Your task to perform on an android device: Search for dining sets on article.com Image 0: 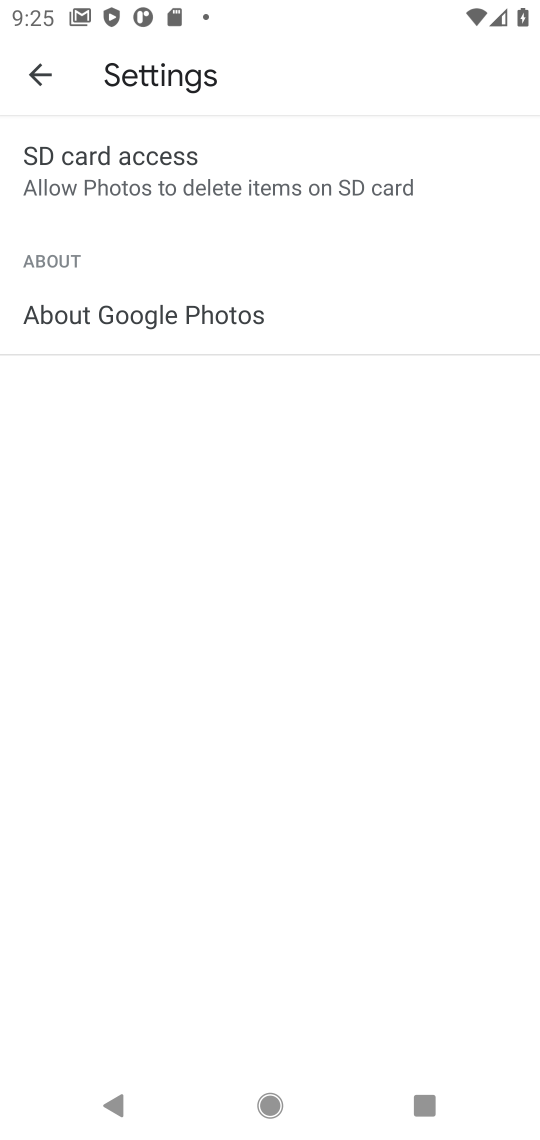
Step 0: press home button
Your task to perform on an android device: Search for dining sets on article.com Image 1: 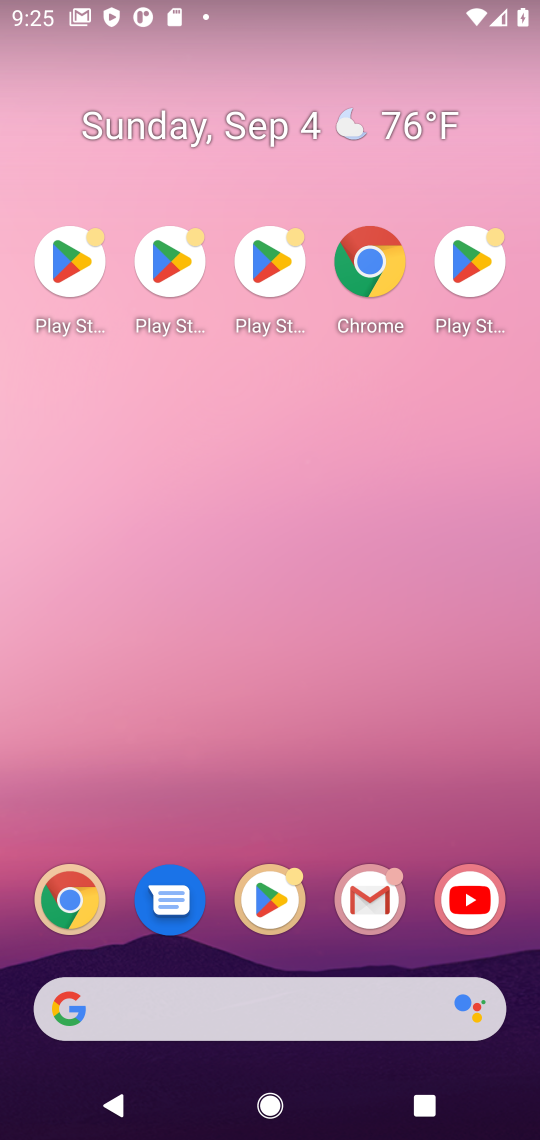
Step 1: drag from (286, 982) to (179, 64)
Your task to perform on an android device: Search for dining sets on article.com Image 2: 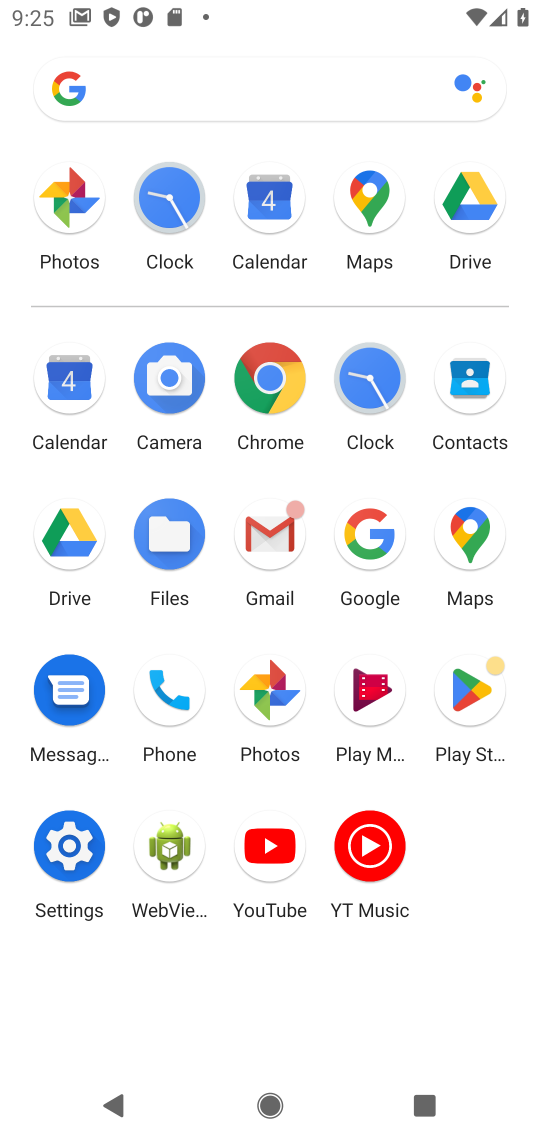
Step 2: click (270, 378)
Your task to perform on an android device: Search for dining sets on article.com Image 3: 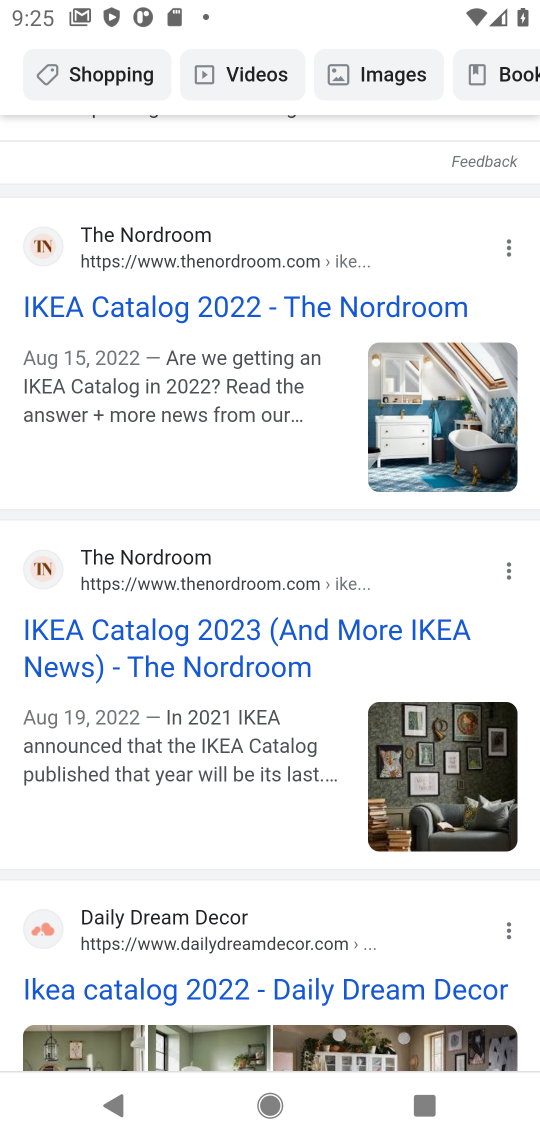
Step 3: drag from (109, 186) to (184, 819)
Your task to perform on an android device: Search for dining sets on article.com Image 4: 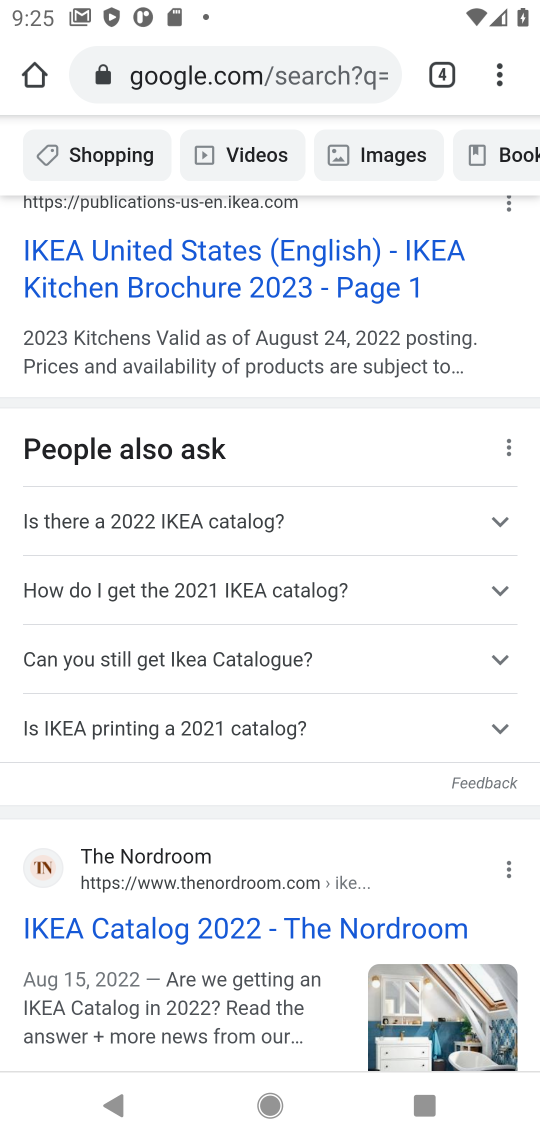
Step 4: drag from (209, 456) to (124, 1138)
Your task to perform on an android device: Search for dining sets on article.com Image 5: 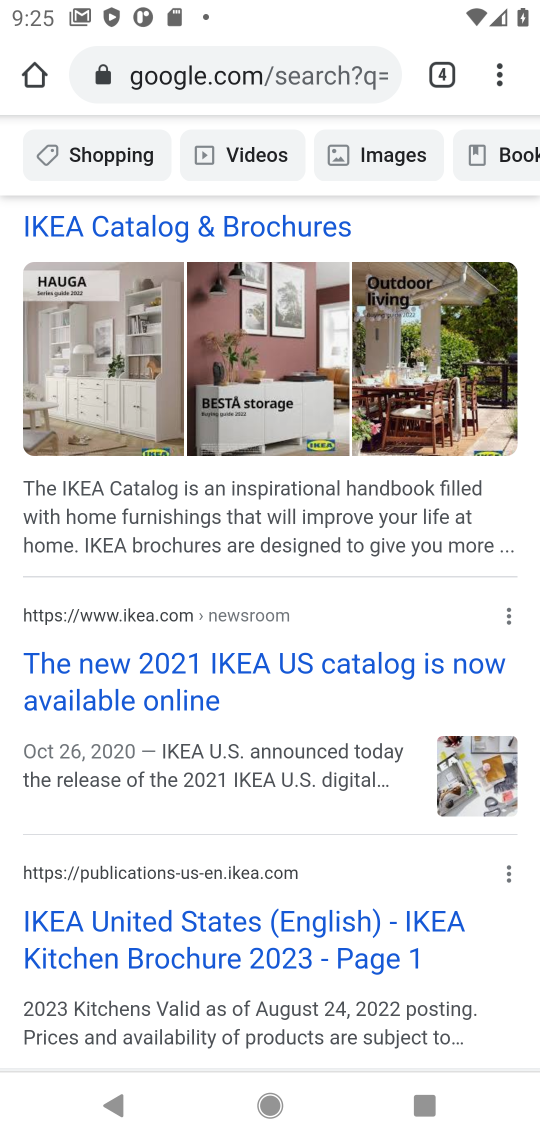
Step 5: click (434, 87)
Your task to perform on an android device: Search for dining sets on article.com Image 6: 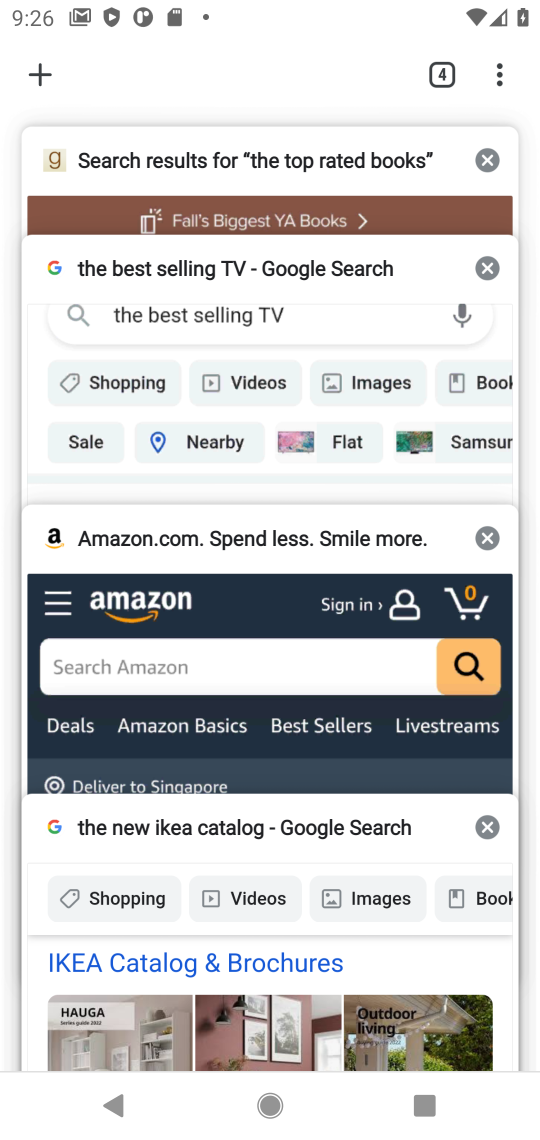
Step 6: click (42, 69)
Your task to perform on an android device: Search for dining sets on article.com Image 7: 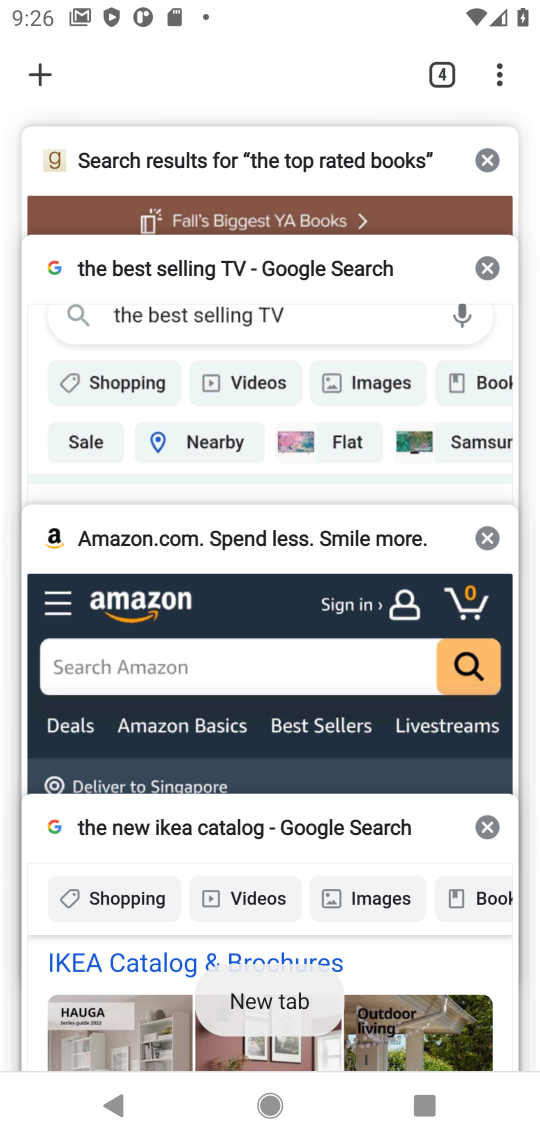
Step 7: click (43, 76)
Your task to perform on an android device: Search for dining sets on article.com Image 8: 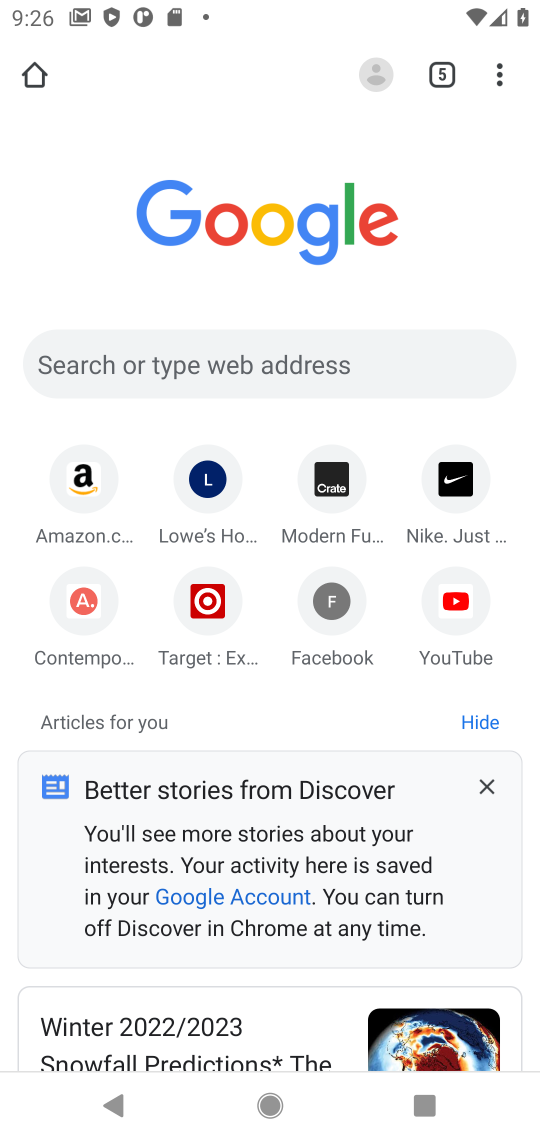
Step 8: click (270, 339)
Your task to perform on an android device: Search for dining sets on article.com Image 9: 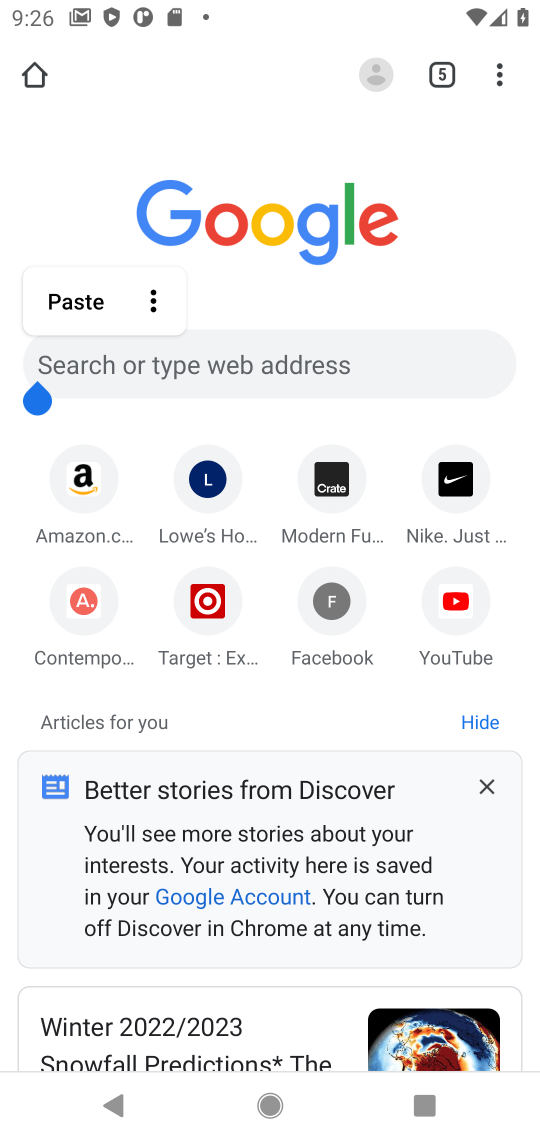
Step 9: click (122, 368)
Your task to perform on an android device: Search for dining sets on article.com Image 10: 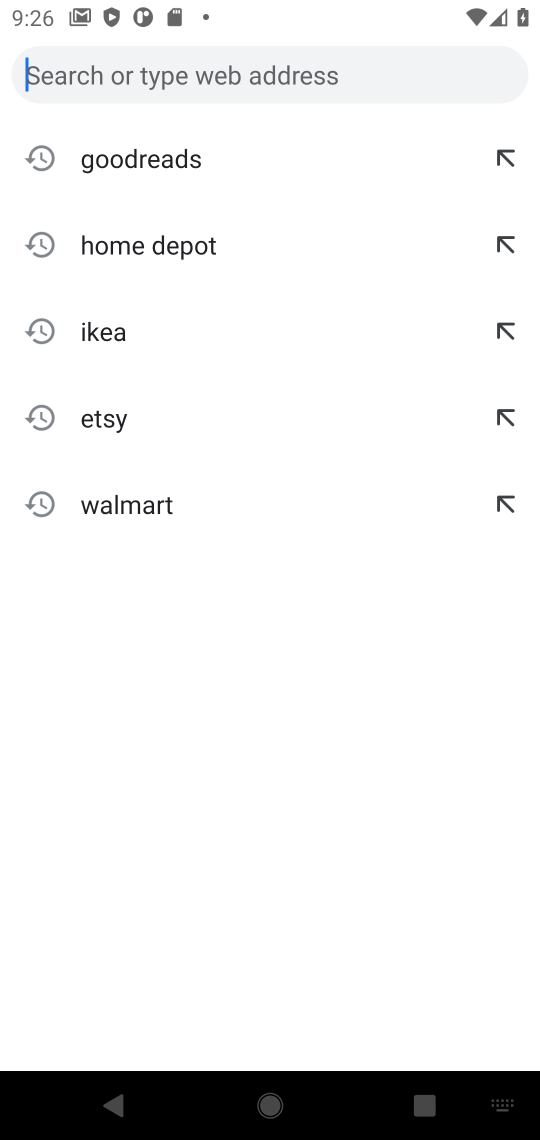
Step 10: type "article.com"
Your task to perform on an android device: Search for dining sets on article.com Image 11: 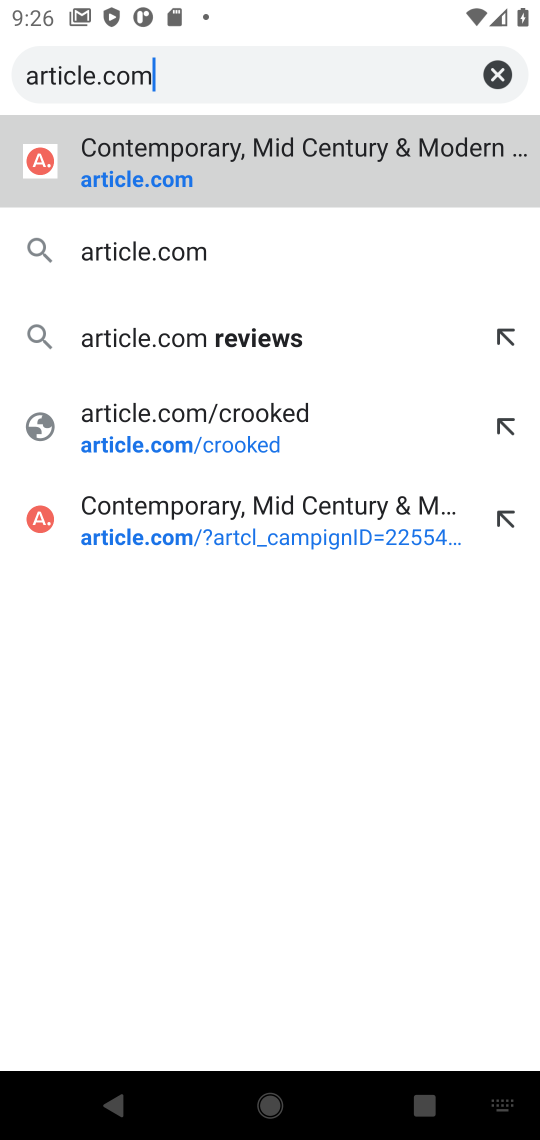
Step 11: click (152, 168)
Your task to perform on an android device: Search for dining sets on article.com Image 12: 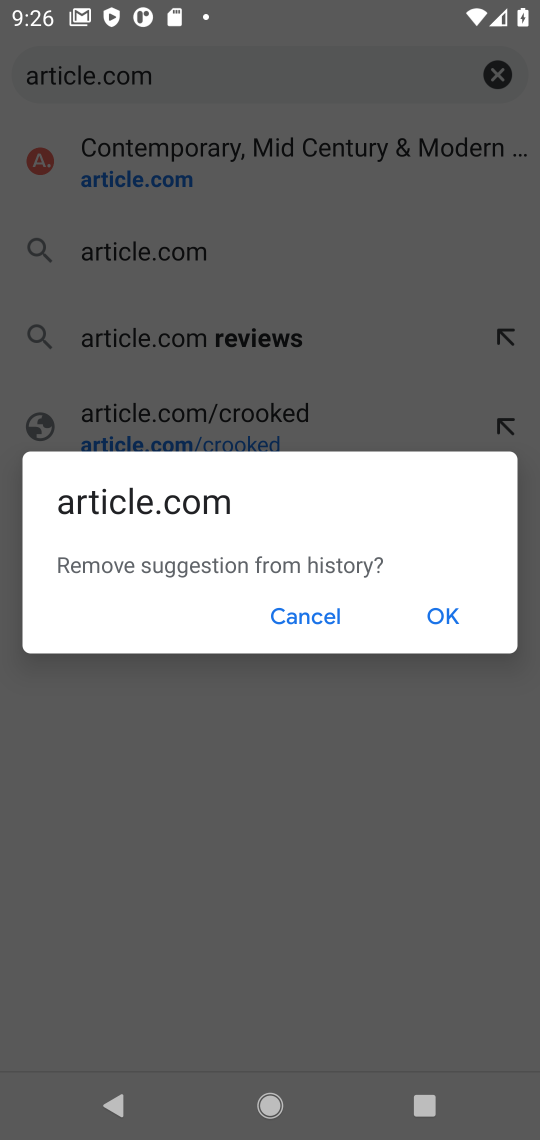
Step 12: click (289, 618)
Your task to perform on an android device: Search for dining sets on article.com Image 13: 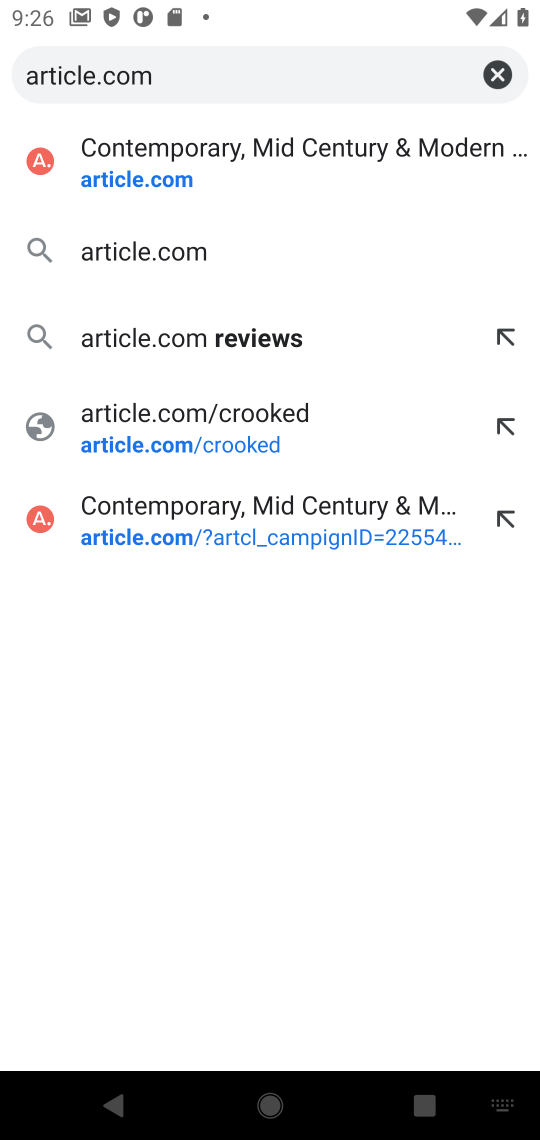
Step 13: click (107, 147)
Your task to perform on an android device: Search for dining sets on article.com Image 14: 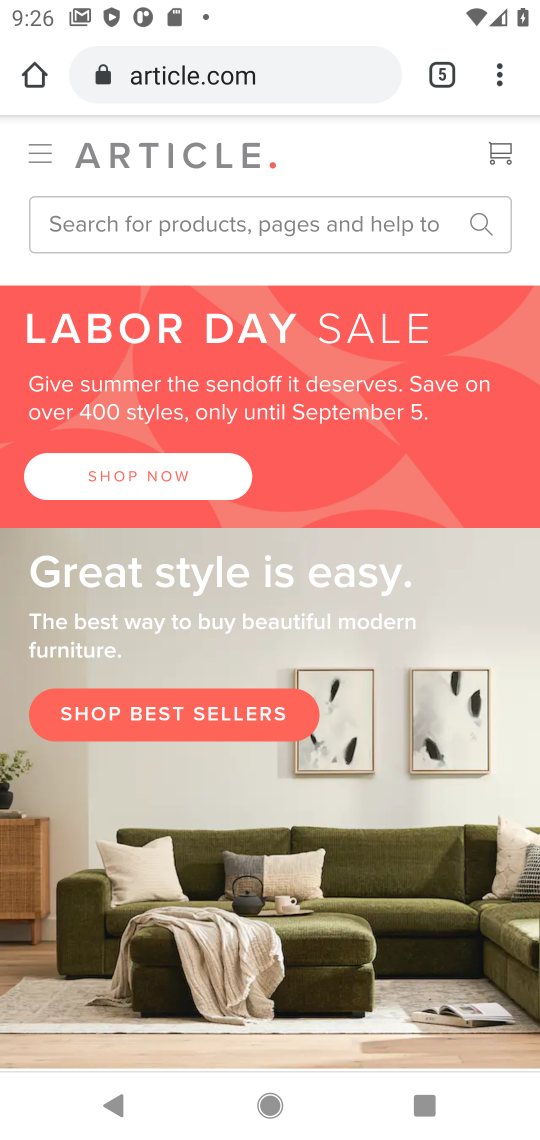
Step 14: click (179, 241)
Your task to perform on an android device: Search for dining sets on article.com Image 15: 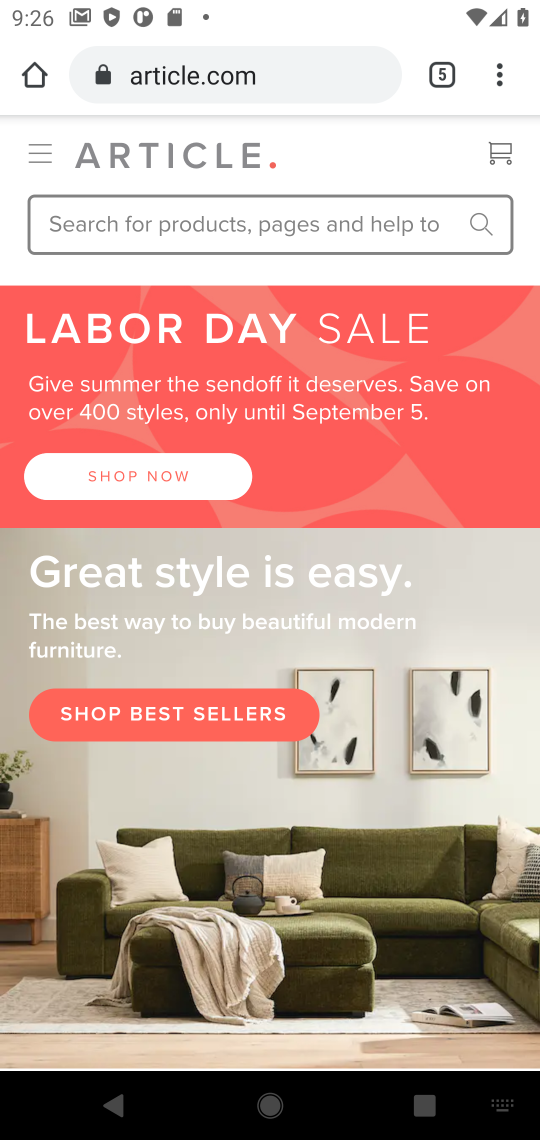
Step 15: type " dining sets"
Your task to perform on an android device: Search for dining sets on article.com Image 16: 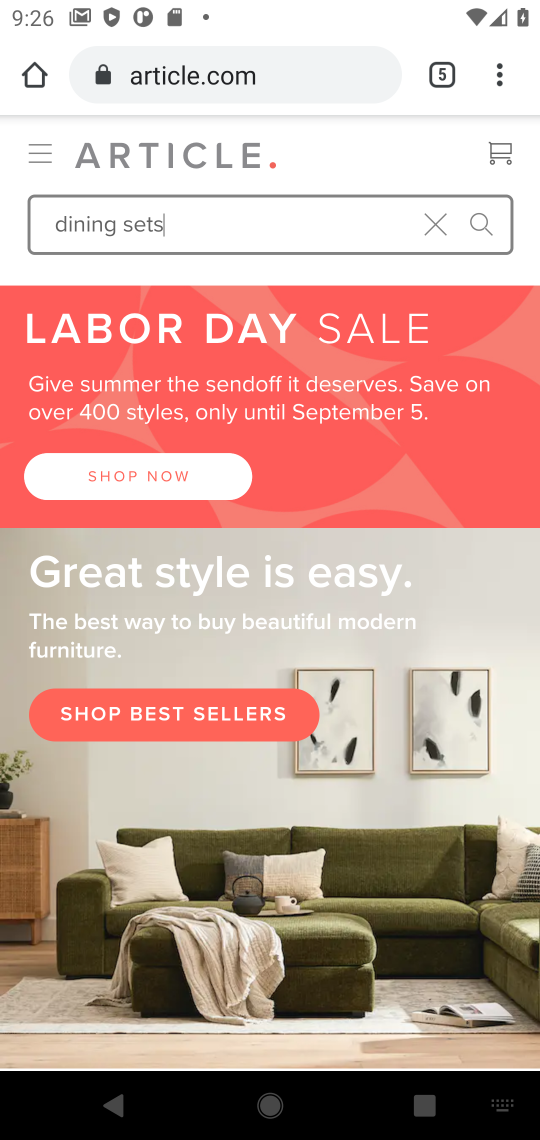
Step 16: type ""
Your task to perform on an android device: Search for dining sets on article.com Image 17: 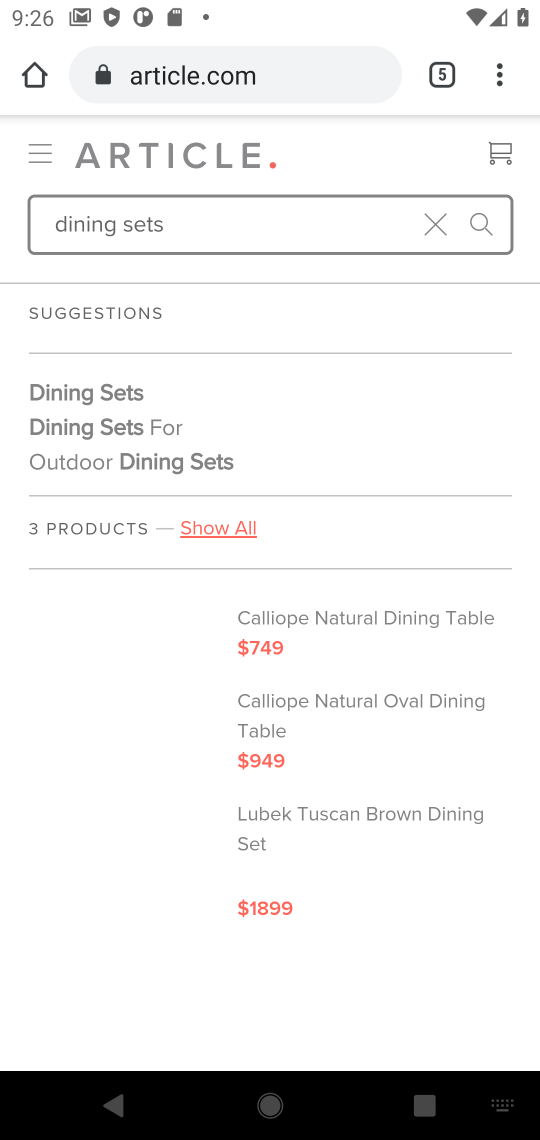
Step 17: task complete